Your task to perform on an android device: Open the web browser Image 0: 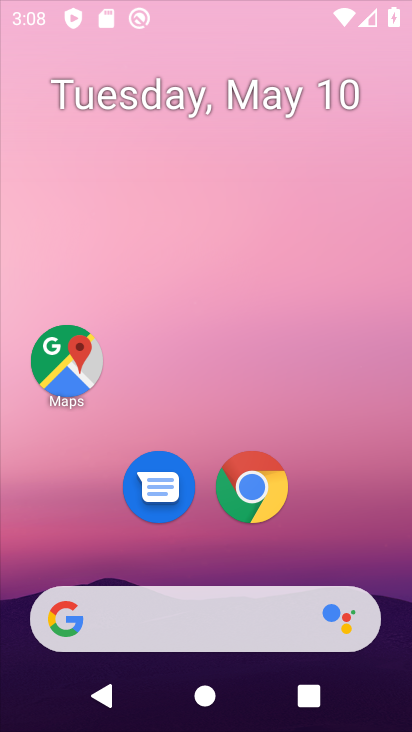
Step 0: drag from (203, 522) to (212, 18)
Your task to perform on an android device: Open the web browser Image 1: 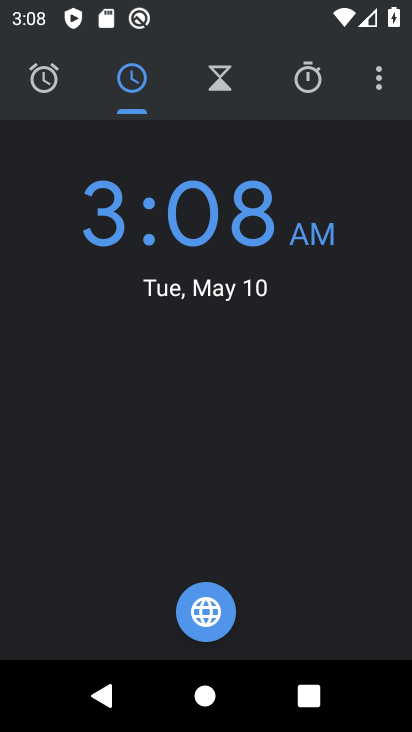
Step 1: press home button
Your task to perform on an android device: Open the web browser Image 2: 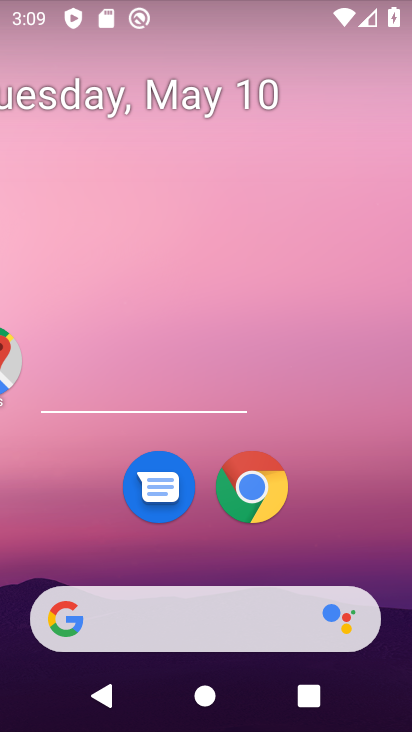
Step 2: drag from (218, 563) to (227, 80)
Your task to perform on an android device: Open the web browser Image 3: 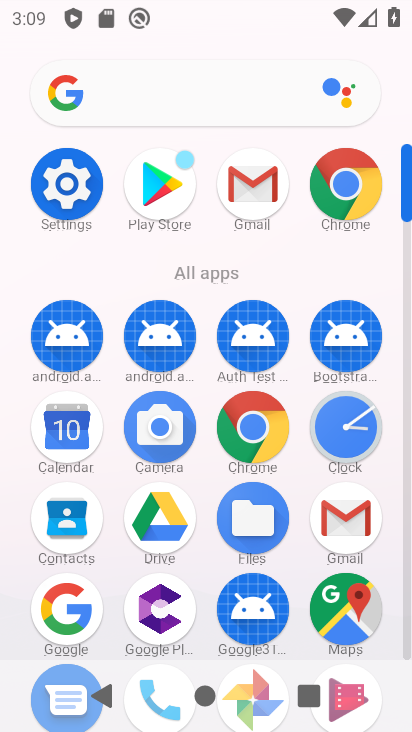
Step 3: click (249, 423)
Your task to perform on an android device: Open the web browser Image 4: 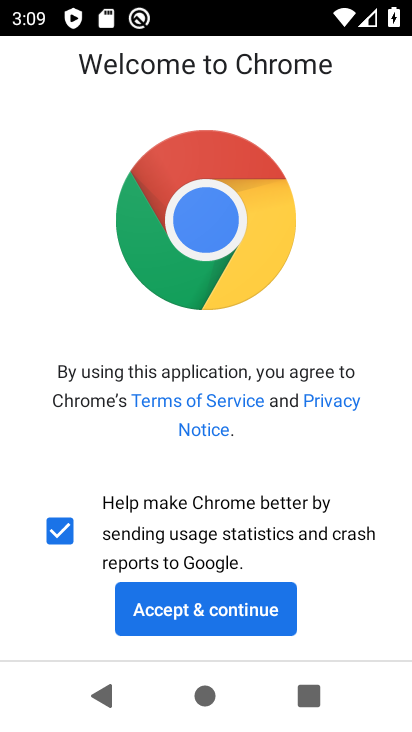
Step 4: click (206, 612)
Your task to perform on an android device: Open the web browser Image 5: 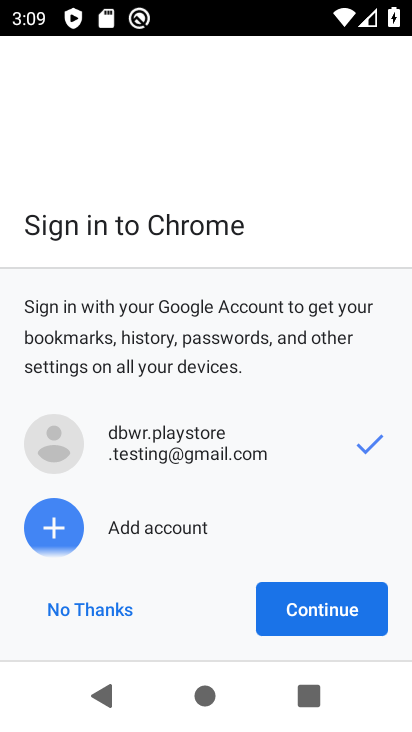
Step 5: click (337, 610)
Your task to perform on an android device: Open the web browser Image 6: 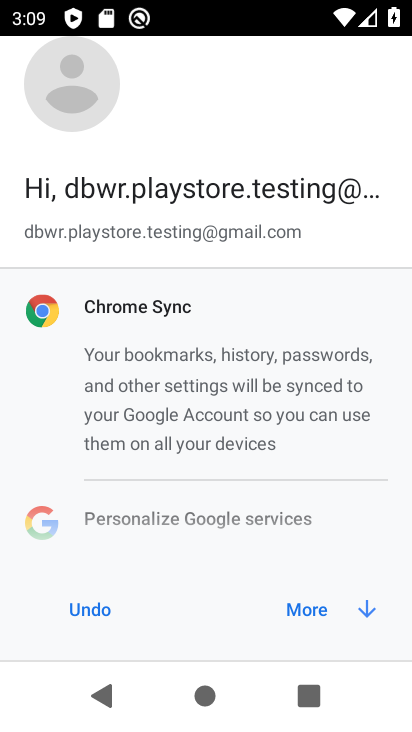
Step 6: click (318, 613)
Your task to perform on an android device: Open the web browser Image 7: 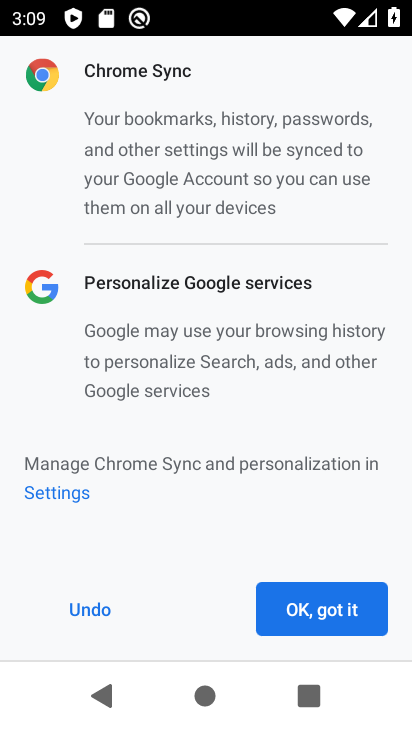
Step 7: click (317, 613)
Your task to perform on an android device: Open the web browser Image 8: 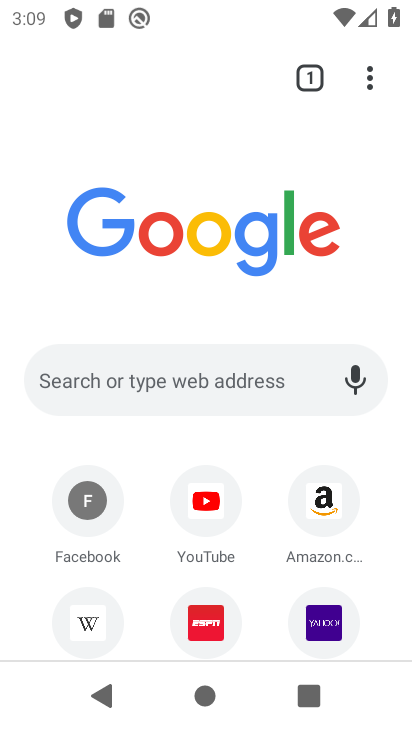
Step 8: task complete